Your task to perform on an android device: Open notification settings Image 0: 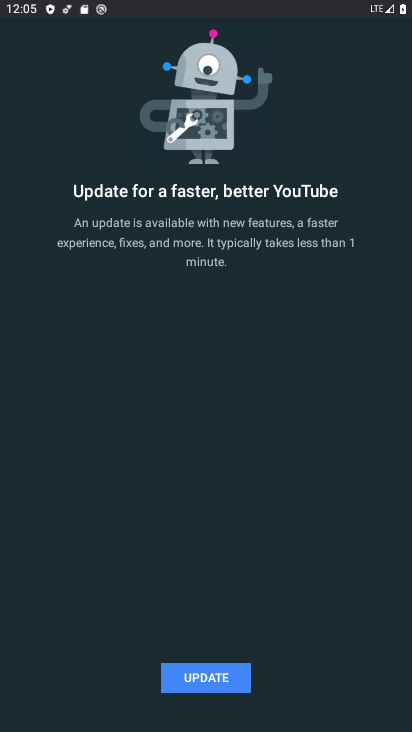
Step 0: press home button
Your task to perform on an android device: Open notification settings Image 1: 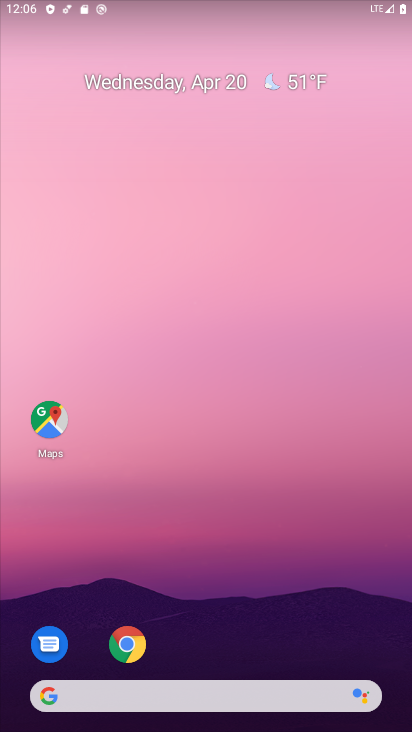
Step 1: drag from (205, 727) to (204, 277)
Your task to perform on an android device: Open notification settings Image 2: 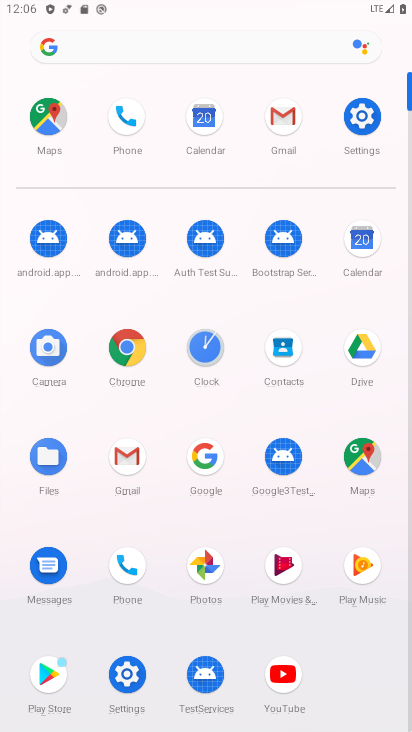
Step 2: click (361, 115)
Your task to perform on an android device: Open notification settings Image 3: 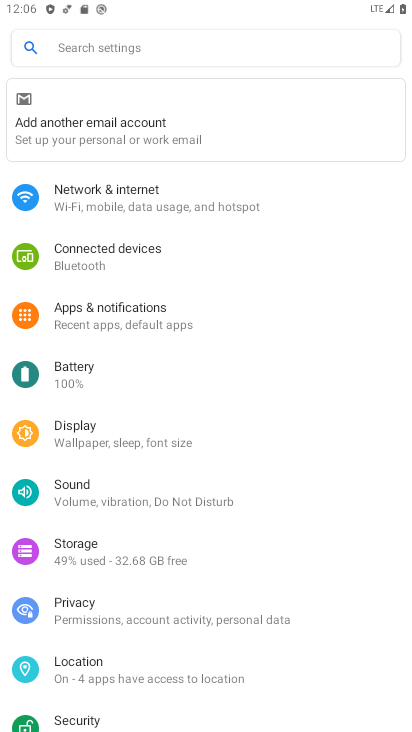
Step 3: click (116, 311)
Your task to perform on an android device: Open notification settings Image 4: 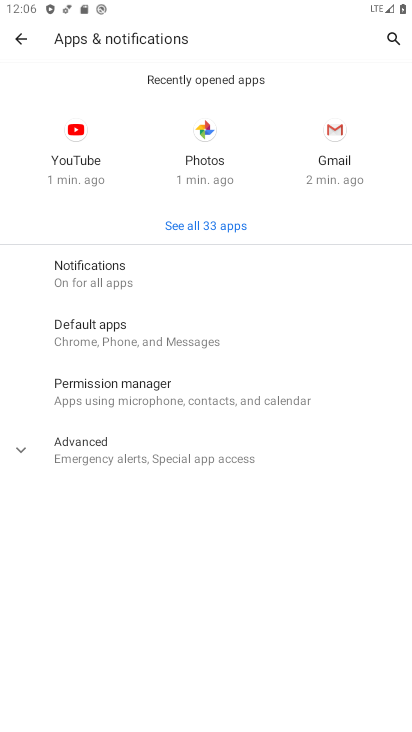
Step 4: click (83, 269)
Your task to perform on an android device: Open notification settings Image 5: 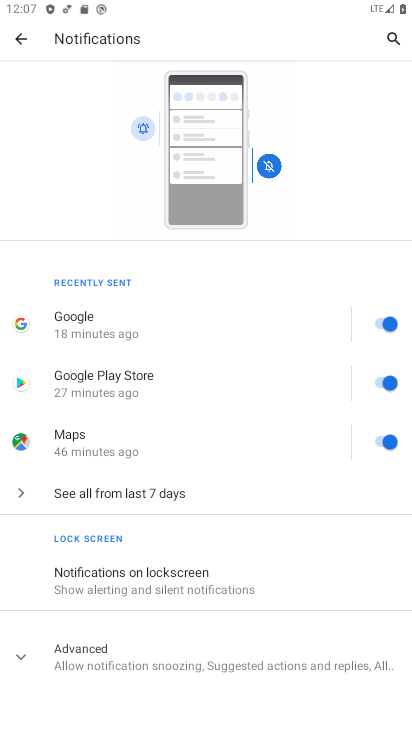
Step 5: task complete